Your task to perform on an android device: Is it going to rain today? Image 0: 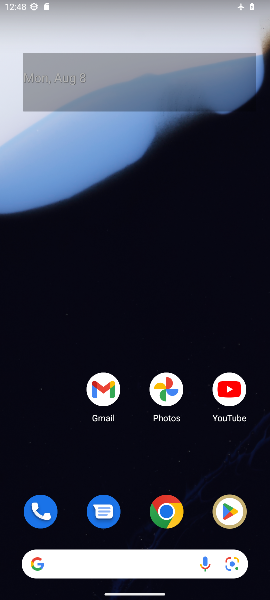
Step 0: click (96, 564)
Your task to perform on an android device: Is it going to rain today? Image 1: 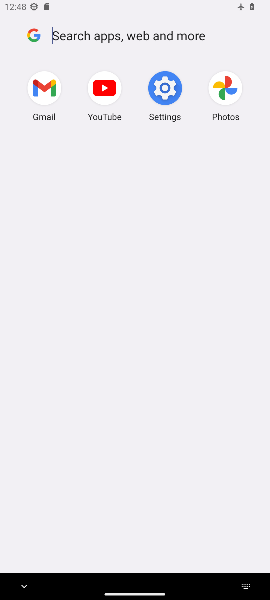
Step 1: type "Is it going to rain today?"
Your task to perform on an android device: Is it going to rain today? Image 2: 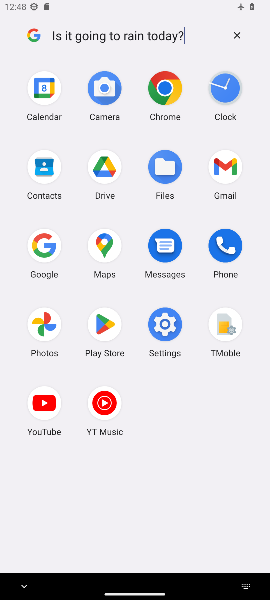
Step 2: type ""
Your task to perform on an android device: Is it going to rain today? Image 3: 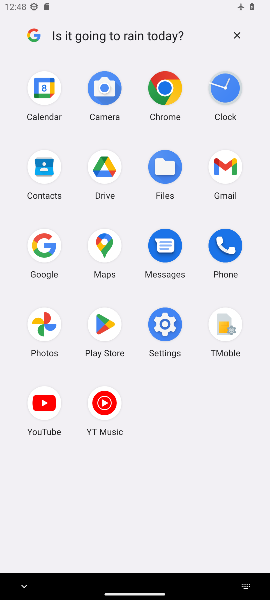
Step 3: press enter
Your task to perform on an android device: Is it going to rain today? Image 4: 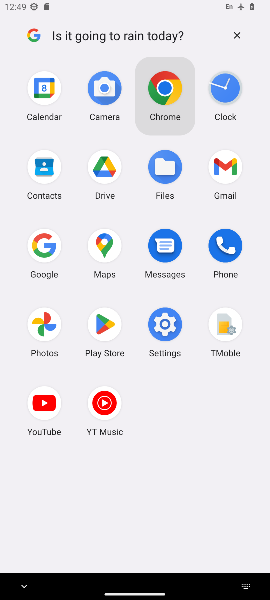
Step 4: press enter
Your task to perform on an android device: Is it going to rain today? Image 5: 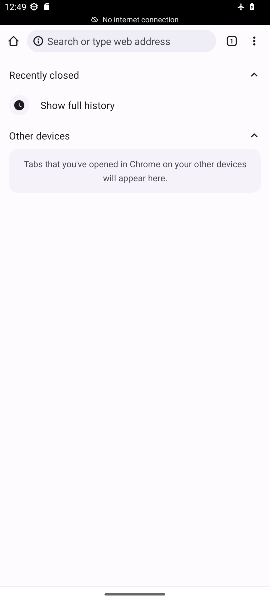
Step 5: click (165, 38)
Your task to perform on an android device: Is it going to rain today? Image 6: 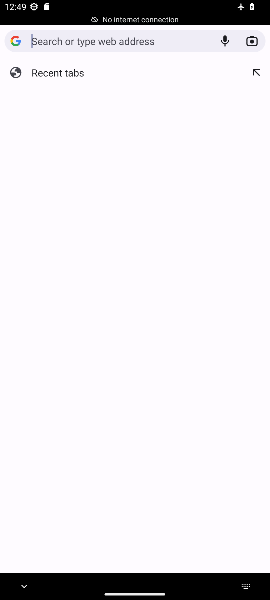
Step 6: type "Is it going to rain today?"
Your task to perform on an android device: Is it going to rain today? Image 7: 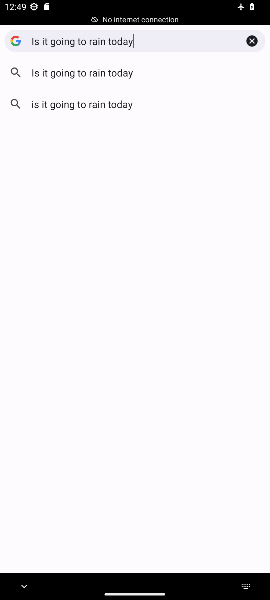
Step 7: type ""
Your task to perform on an android device: Is it going to rain today? Image 8: 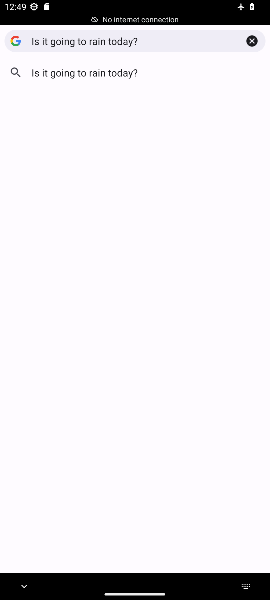
Step 8: press enter
Your task to perform on an android device: Is it going to rain today? Image 9: 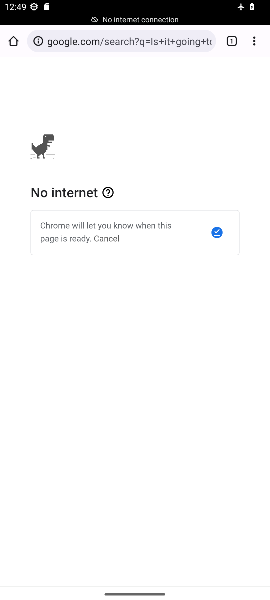
Step 9: task complete